Your task to perform on an android device: turn on bluetooth scan Image 0: 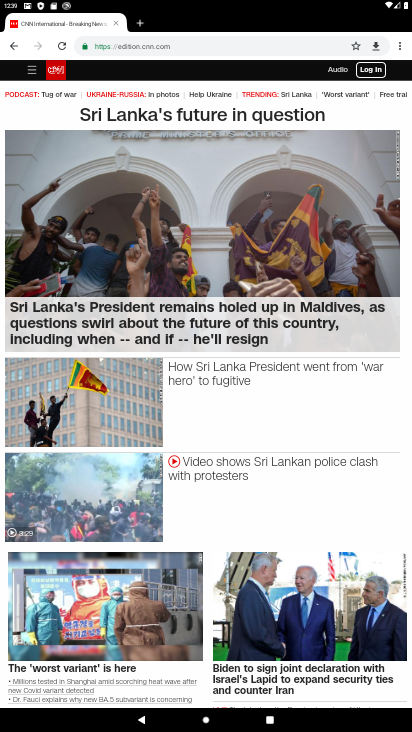
Step 0: press home button
Your task to perform on an android device: turn on bluetooth scan Image 1: 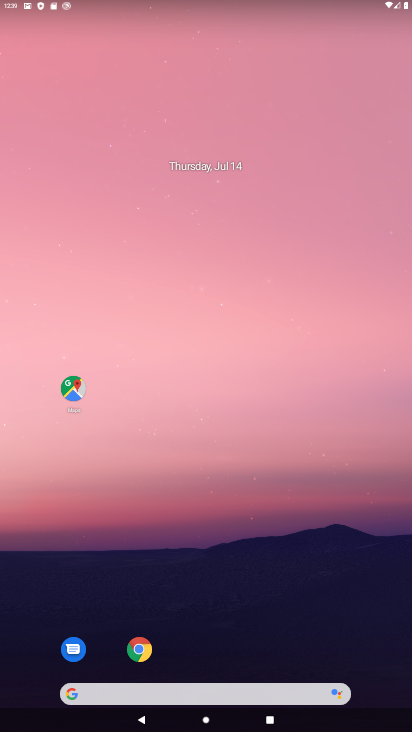
Step 1: drag from (123, 677) to (218, 216)
Your task to perform on an android device: turn on bluetooth scan Image 2: 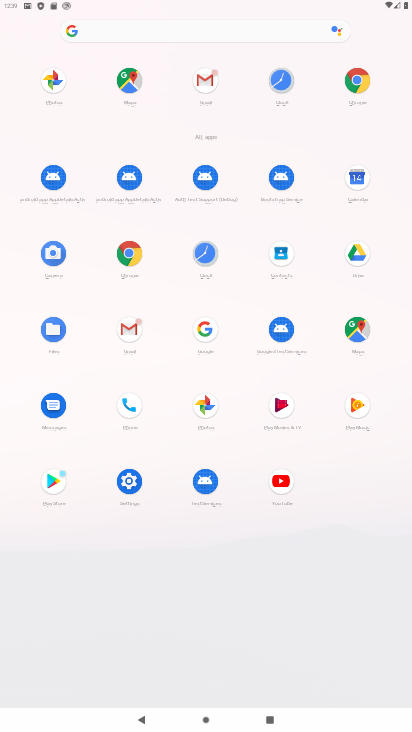
Step 2: click (124, 486)
Your task to perform on an android device: turn on bluetooth scan Image 3: 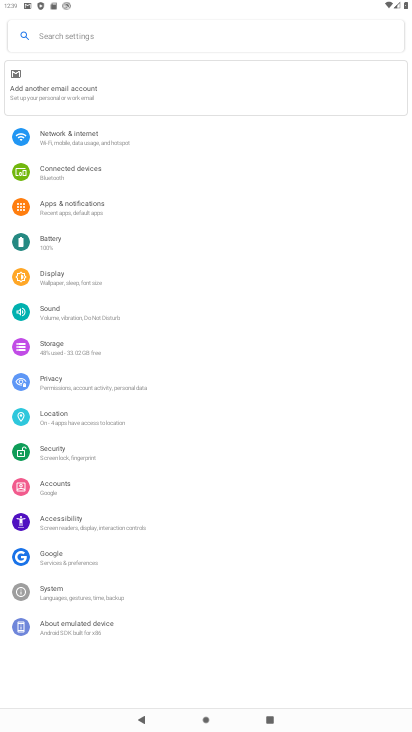
Step 3: click (109, 178)
Your task to perform on an android device: turn on bluetooth scan Image 4: 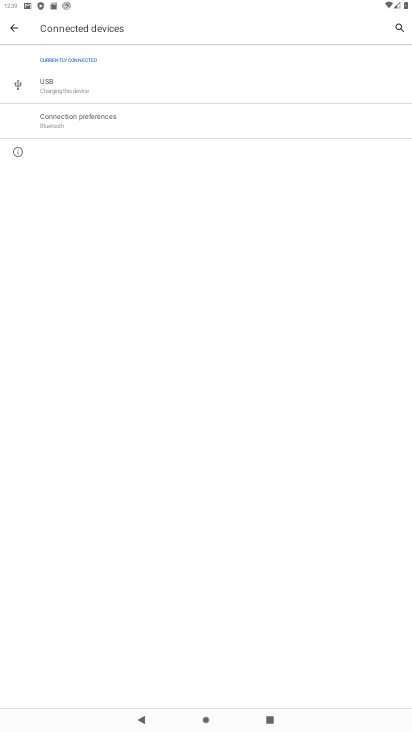
Step 4: click (100, 114)
Your task to perform on an android device: turn on bluetooth scan Image 5: 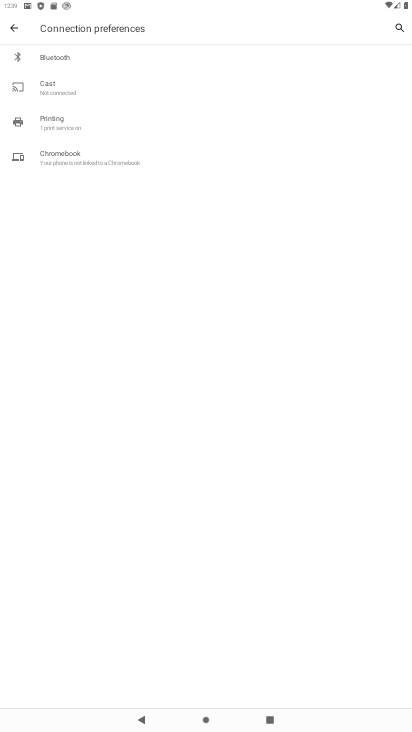
Step 5: click (140, 61)
Your task to perform on an android device: turn on bluetooth scan Image 6: 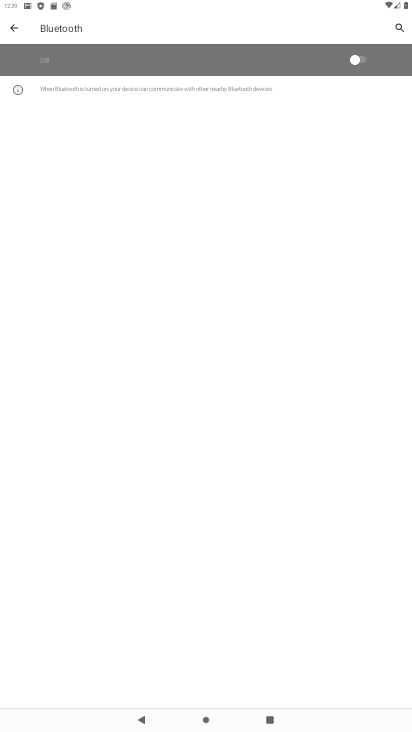
Step 6: click (382, 61)
Your task to perform on an android device: turn on bluetooth scan Image 7: 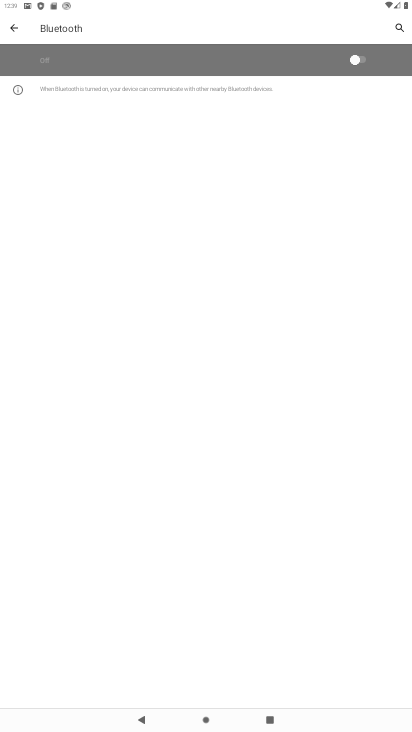
Step 7: task complete